Your task to perform on an android device: Go to Reddit.com Image 0: 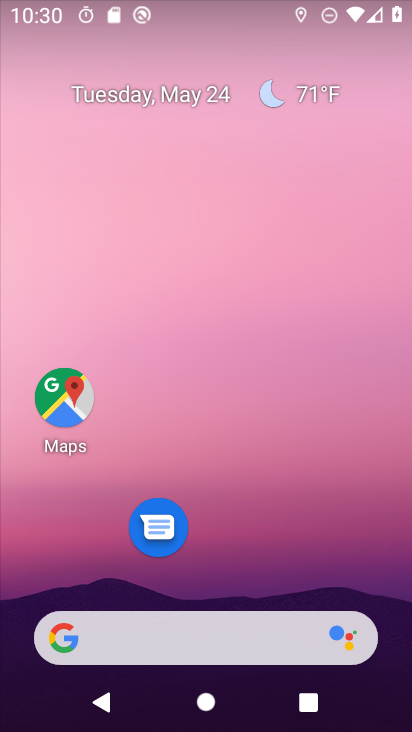
Step 0: drag from (239, 550) to (278, 115)
Your task to perform on an android device: Go to Reddit.com Image 1: 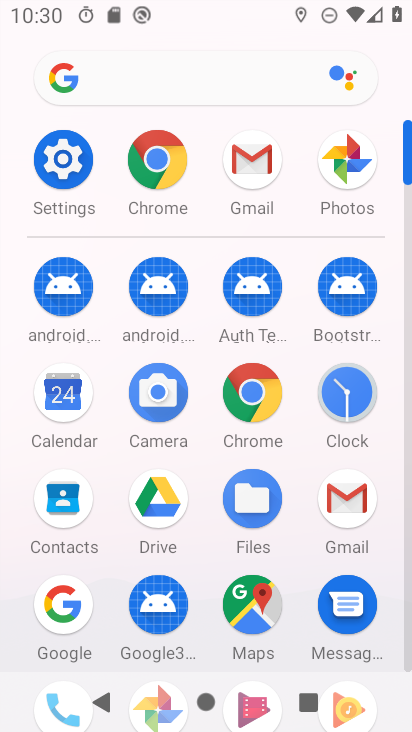
Step 1: click (64, 602)
Your task to perform on an android device: Go to Reddit.com Image 2: 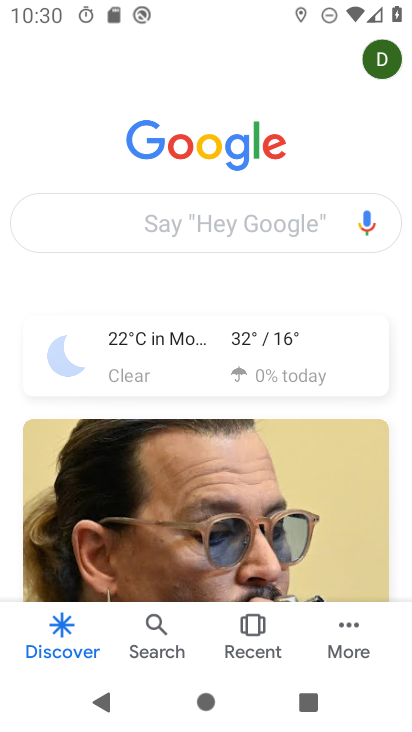
Step 2: click (171, 206)
Your task to perform on an android device: Go to Reddit.com Image 3: 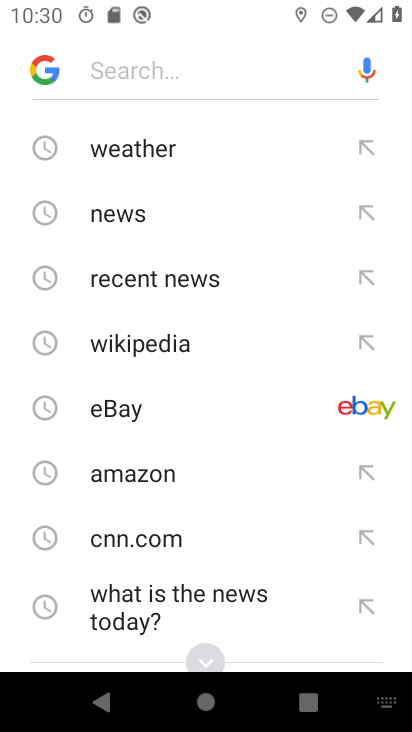
Step 3: drag from (189, 494) to (194, 224)
Your task to perform on an android device: Go to Reddit.com Image 4: 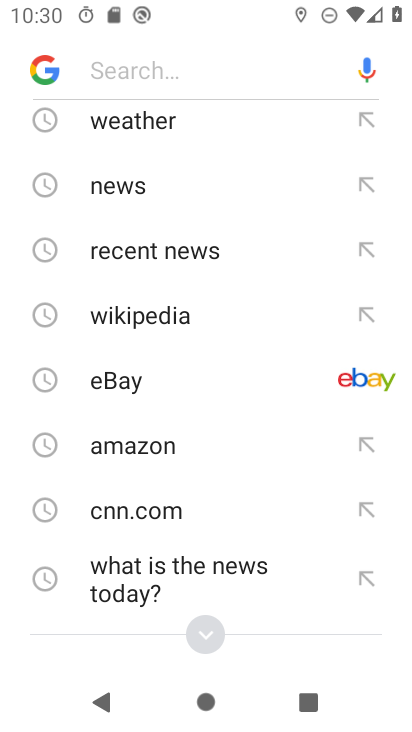
Step 4: click (201, 637)
Your task to perform on an android device: Go to Reddit.com Image 5: 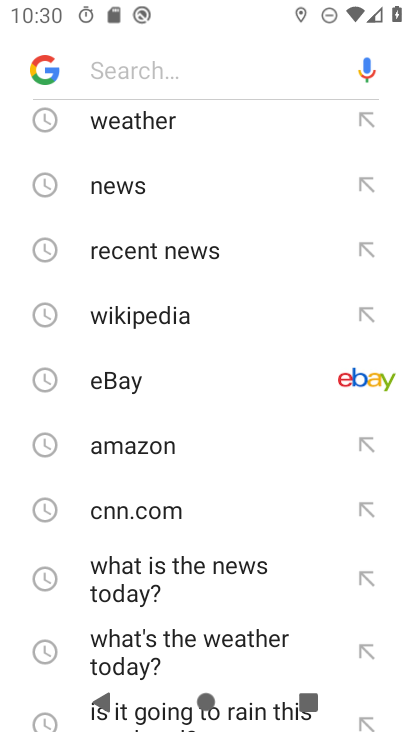
Step 5: drag from (225, 550) to (239, 162)
Your task to perform on an android device: Go to Reddit.com Image 6: 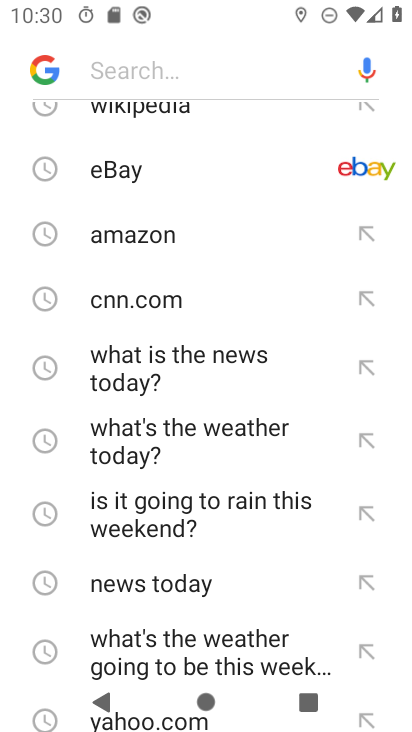
Step 6: drag from (189, 556) to (236, 227)
Your task to perform on an android device: Go to Reddit.com Image 7: 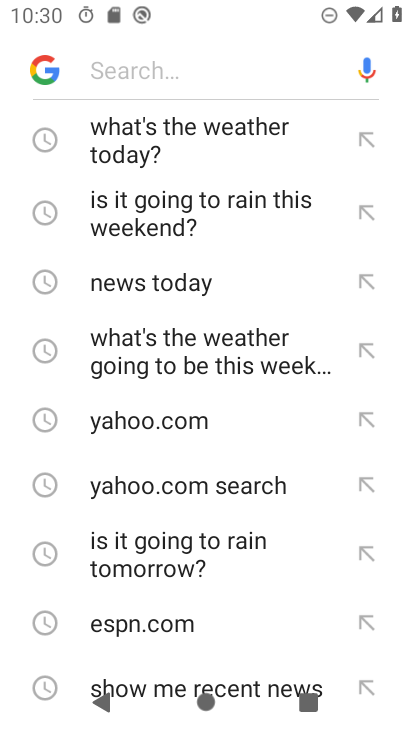
Step 7: drag from (208, 609) to (233, 308)
Your task to perform on an android device: Go to Reddit.com Image 8: 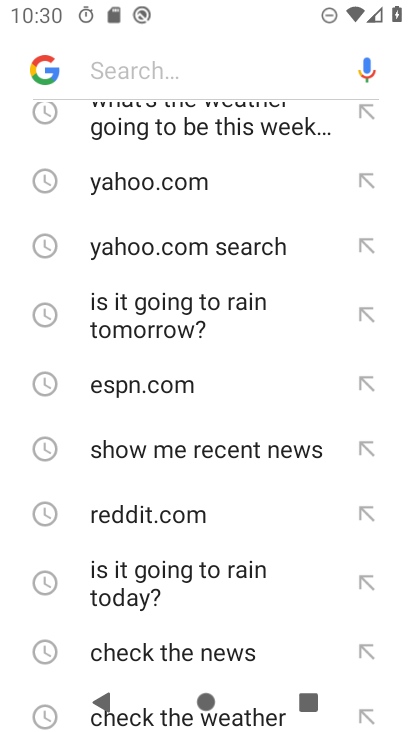
Step 8: click (131, 515)
Your task to perform on an android device: Go to Reddit.com Image 9: 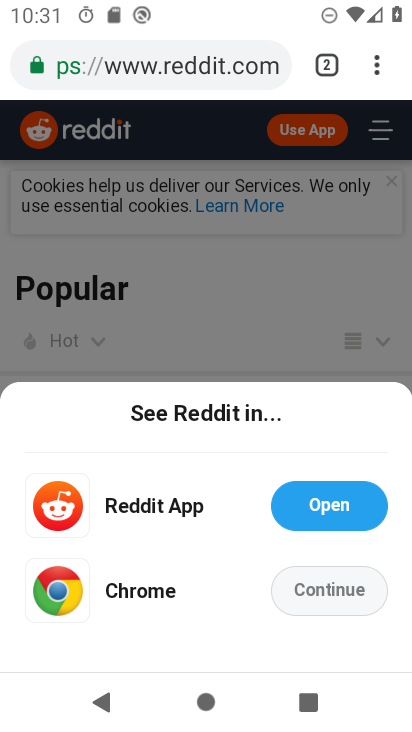
Step 9: task complete